Your task to perform on an android device: Open maps Image 0: 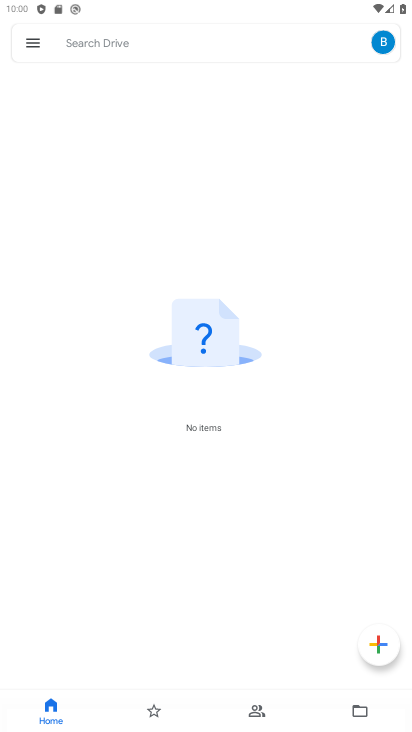
Step 0: press home button
Your task to perform on an android device: Open maps Image 1: 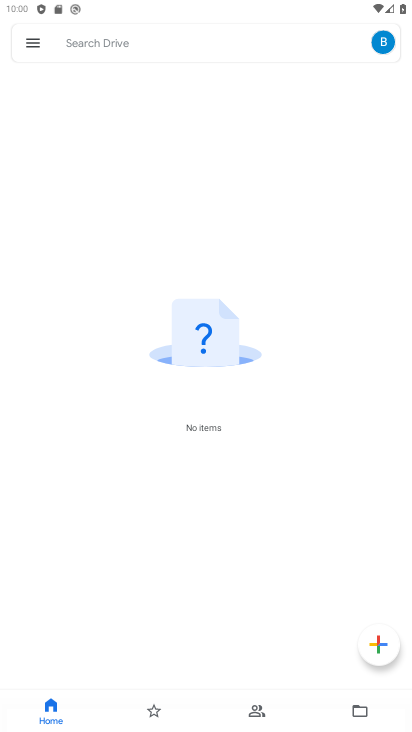
Step 1: press home button
Your task to perform on an android device: Open maps Image 2: 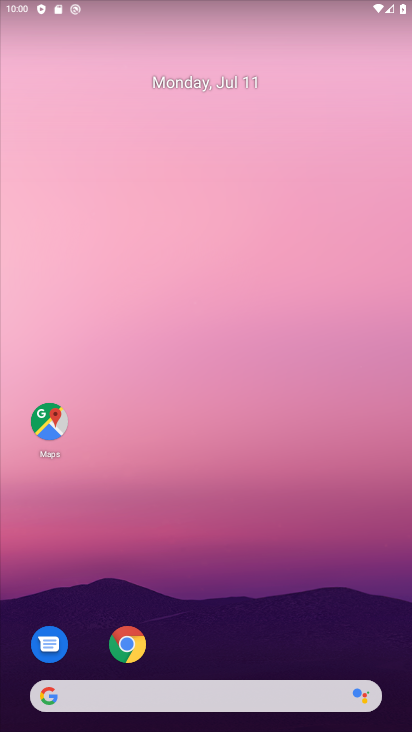
Step 2: click (58, 422)
Your task to perform on an android device: Open maps Image 3: 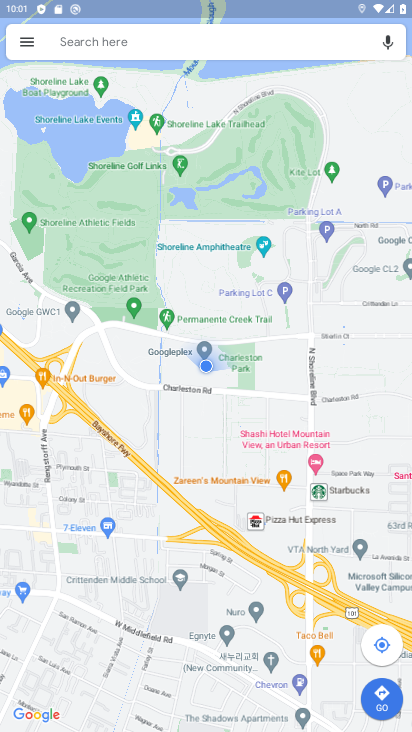
Step 3: task complete